Your task to perform on an android device: Go to Yahoo.com Image 0: 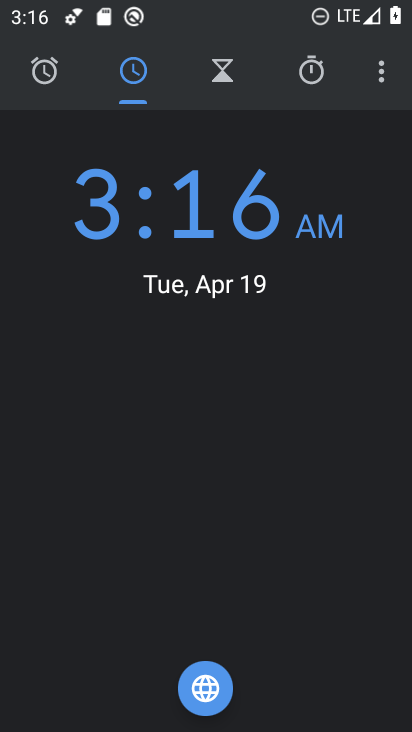
Step 0: press home button
Your task to perform on an android device: Go to Yahoo.com Image 1: 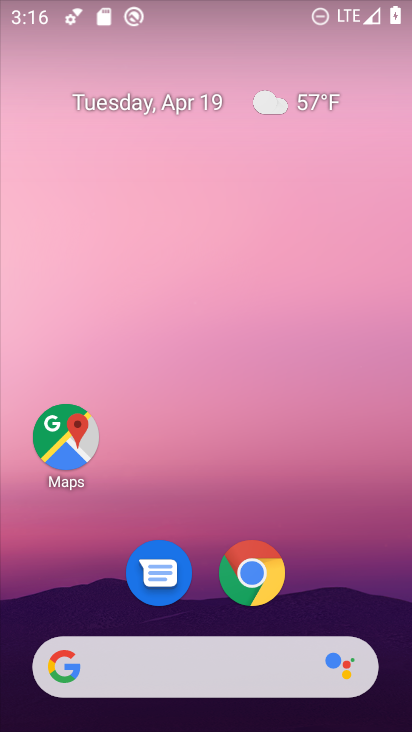
Step 1: click (259, 574)
Your task to perform on an android device: Go to Yahoo.com Image 2: 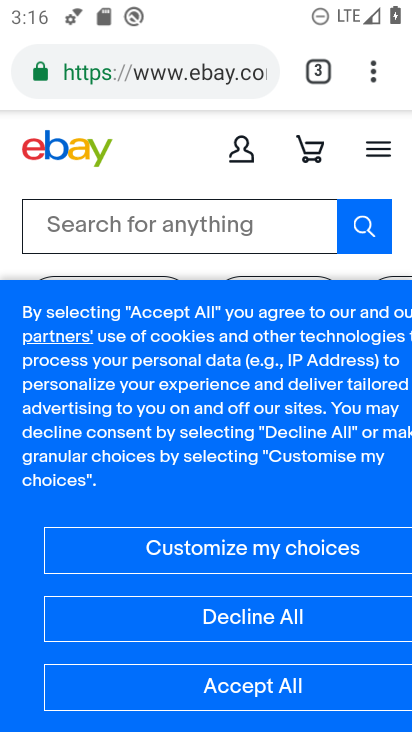
Step 2: click (374, 68)
Your task to perform on an android device: Go to Yahoo.com Image 3: 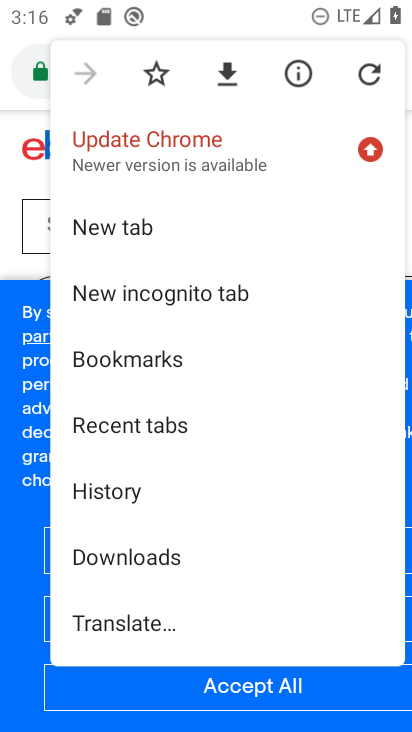
Step 3: click (99, 225)
Your task to perform on an android device: Go to Yahoo.com Image 4: 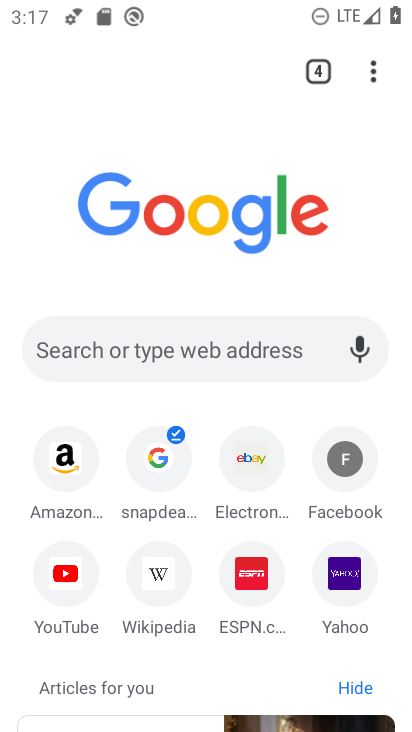
Step 4: click (337, 572)
Your task to perform on an android device: Go to Yahoo.com Image 5: 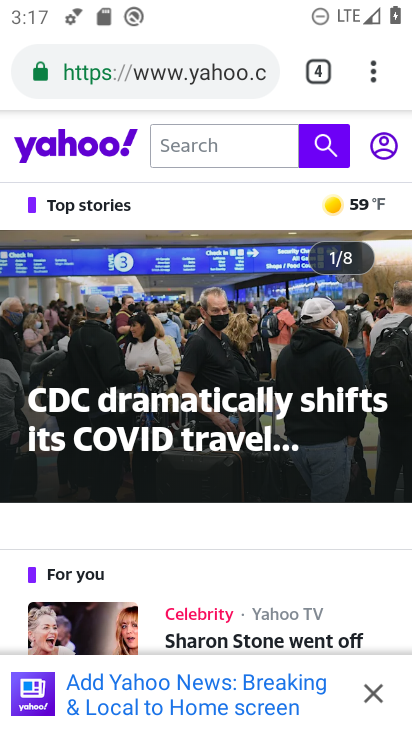
Step 5: task complete